Your task to perform on an android device: change the clock style Image 0: 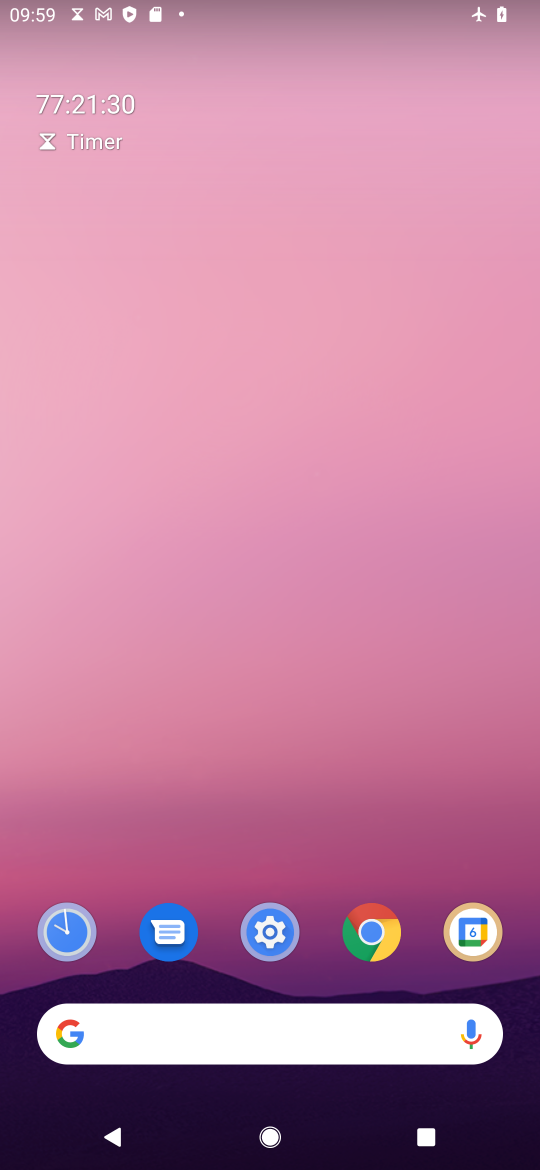
Step 0: click (57, 930)
Your task to perform on an android device: change the clock style Image 1: 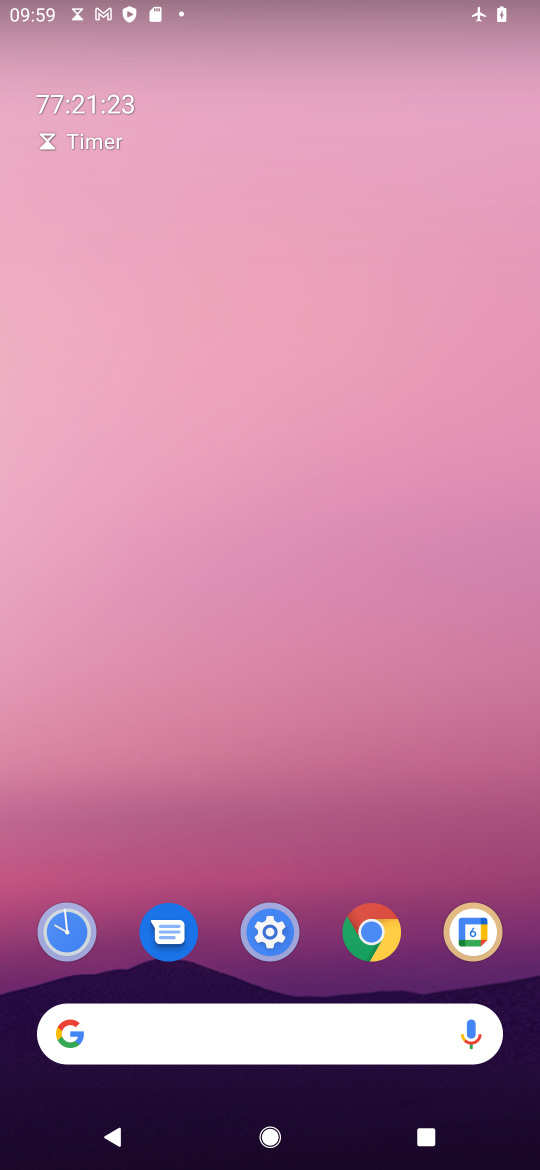
Step 1: click (82, 929)
Your task to perform on an android device: change the clock style Image 2: 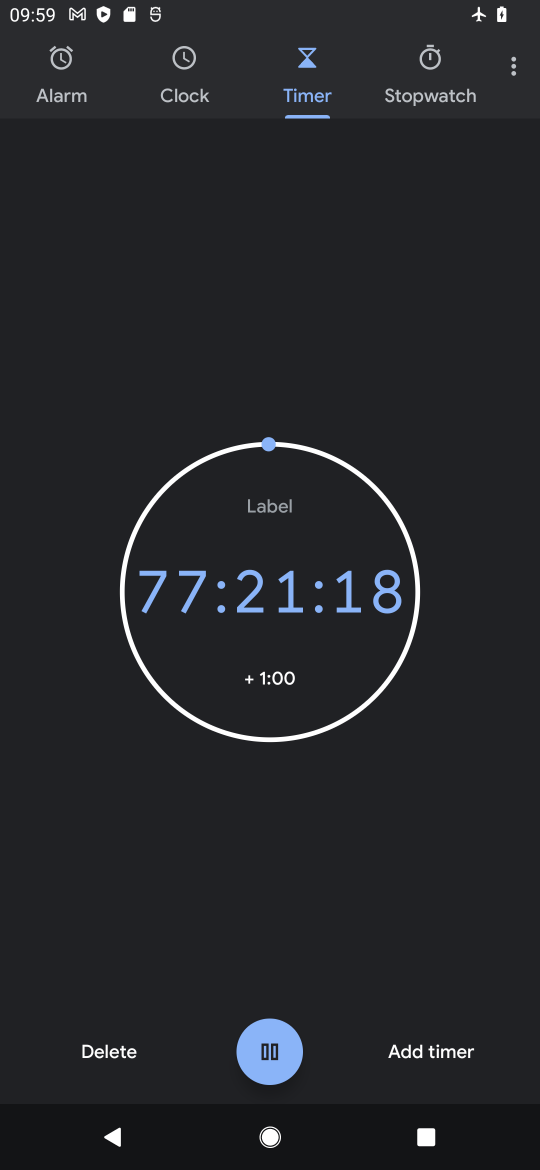
Step 2: click (524, 78)
Your task to perform on an android device: change the clock style Image 3: 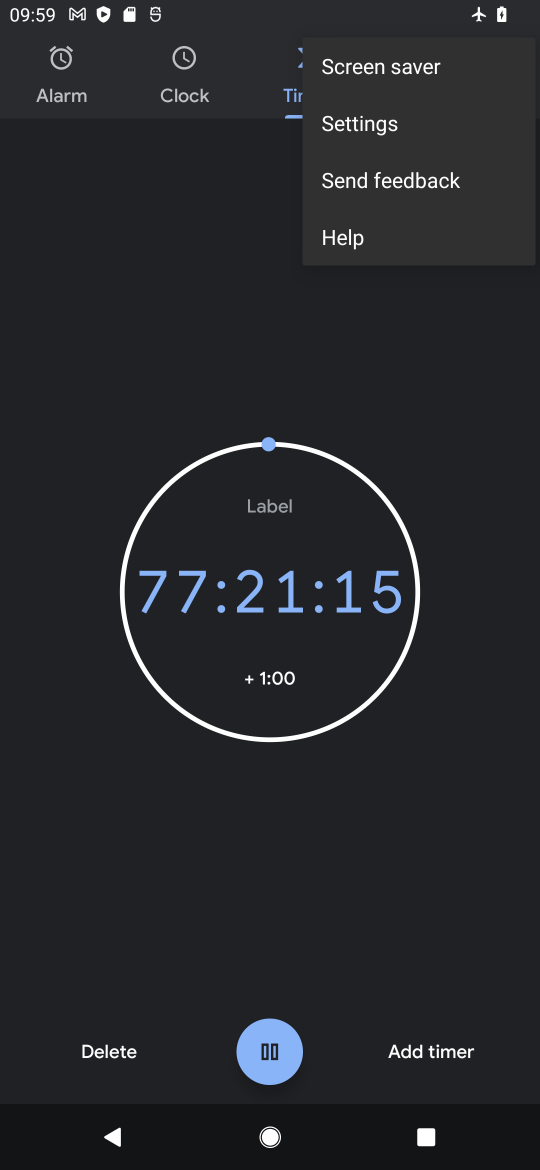
Step 3: click (422, 116)
Your task to perform on an android device: change the clock style Image 4: 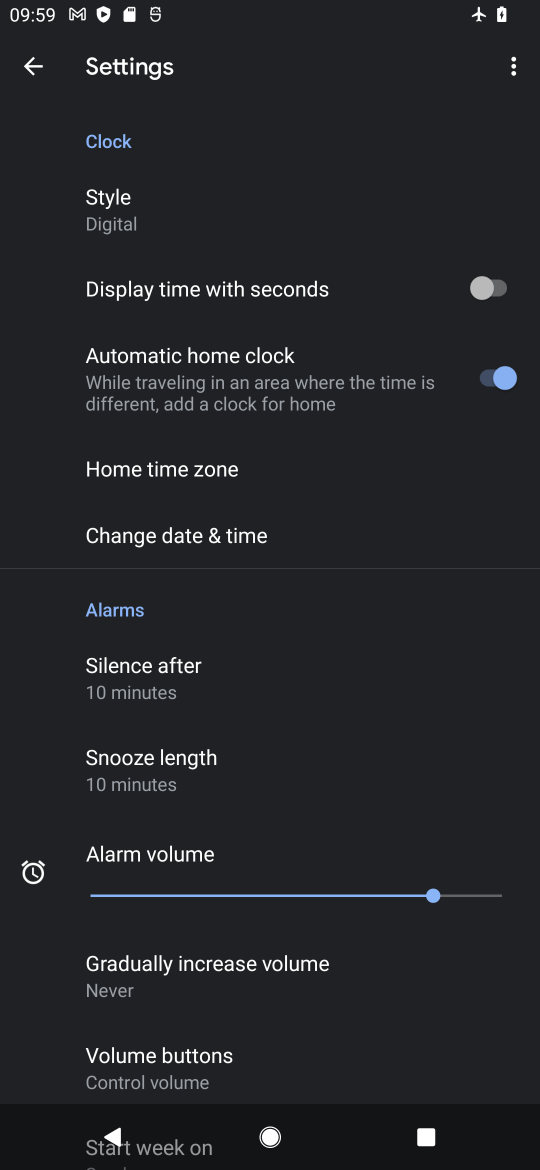
Step 4: click (302, 220)
Your task to perform on an android device: change the clock style Image 5: 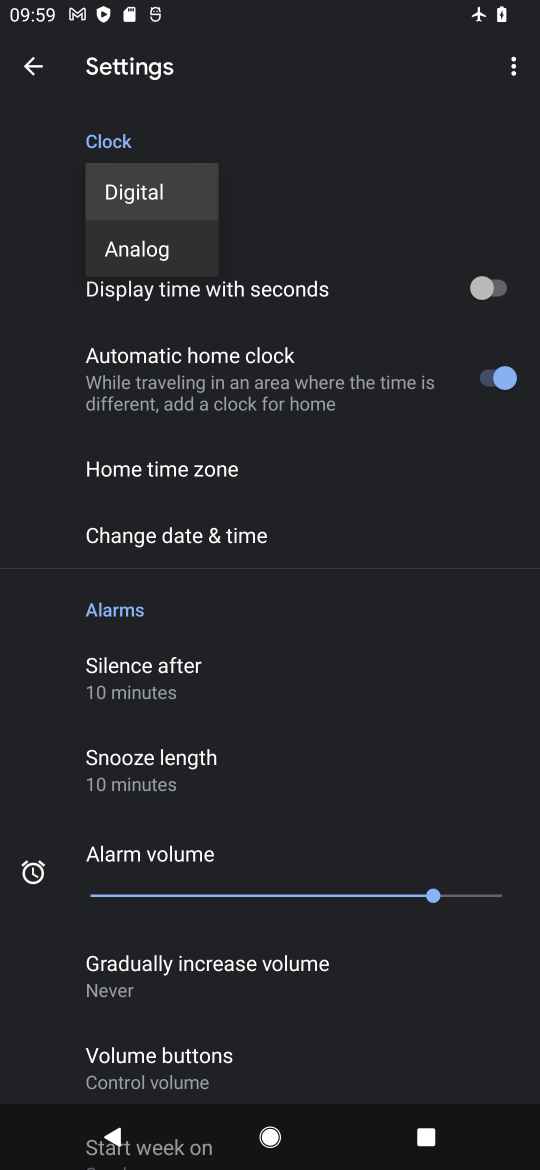
Step 5: click (144, 271)
Your task to perform on an android device: change the clock style Image 6: 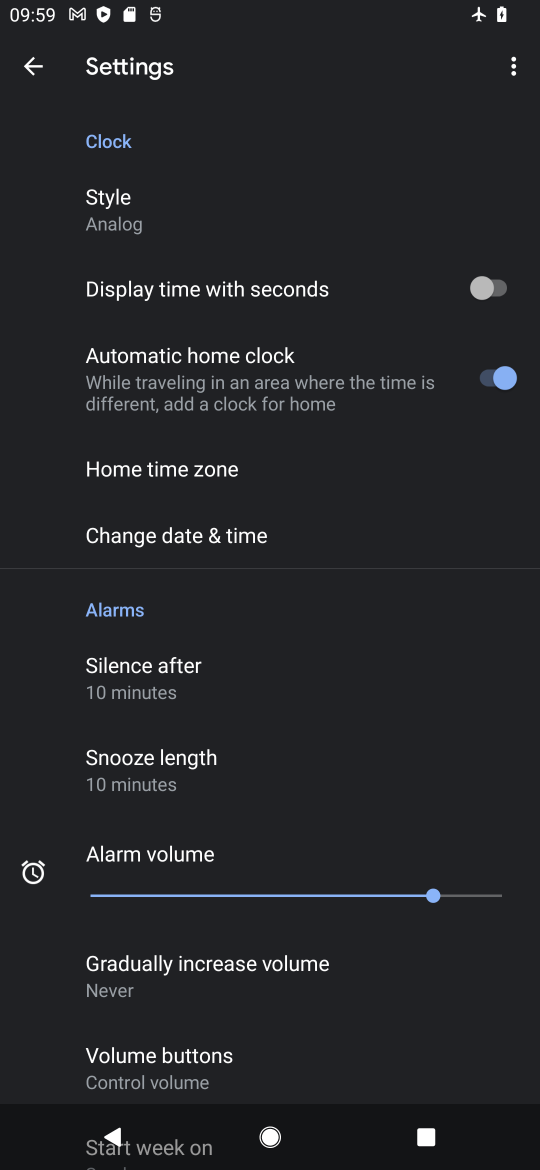
Step 6: task complete